Your task to perform on an android device: Open settings Image 0: 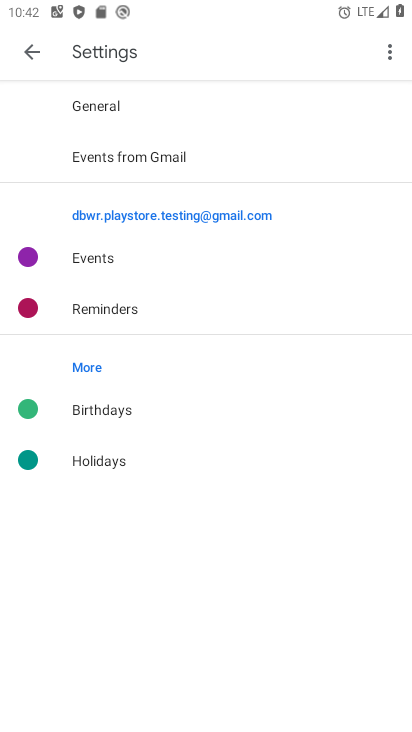
Step 0: press home button
Your task to perform on an android device: Open settings Image 1: 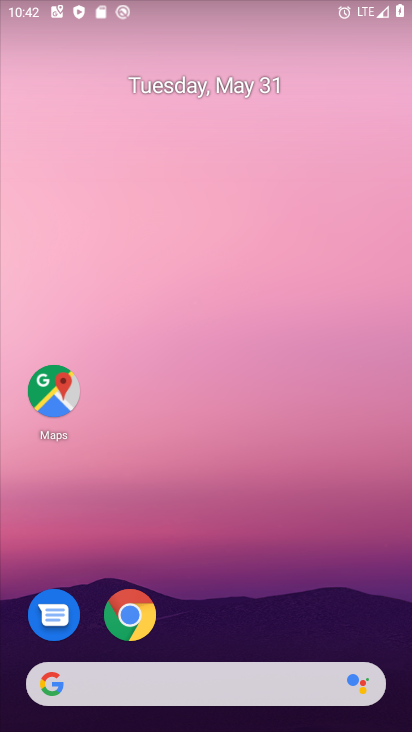
Step 1: drag from (301, 631) to (389, 113)
Your task to perform on an android device: Open settings Image 2: 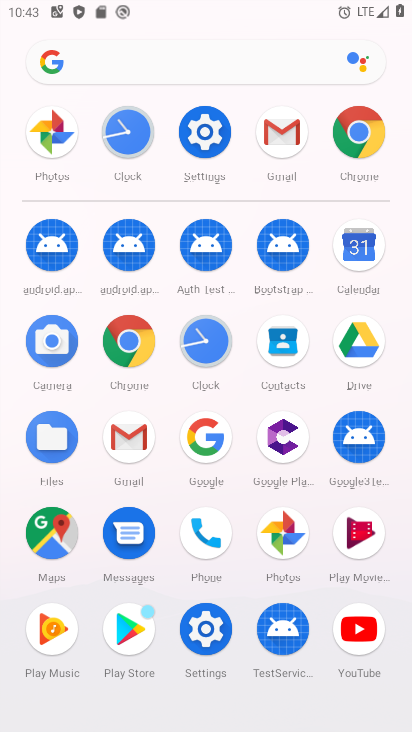
Step 2: click (208, 131)
Your task to perform on an android device: Open settings Image 3: 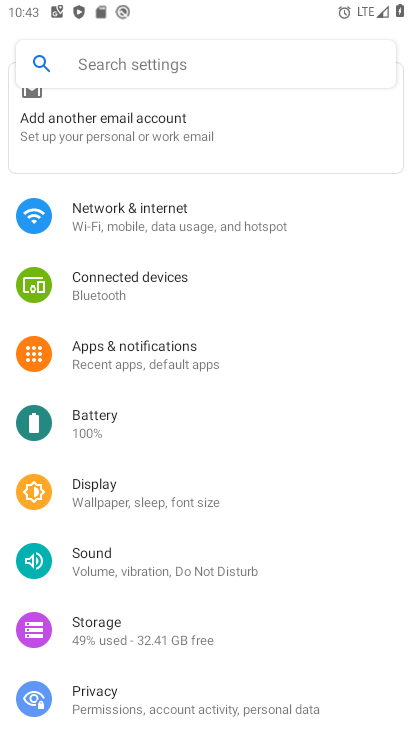
Step 3: task complete